Your task to perform on an android device: open device folders in google photos Image 0: 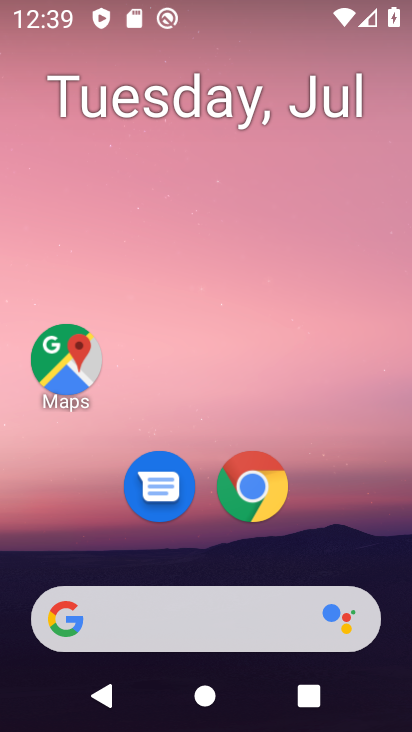
Step 0: drag from (327, 539) to (370, 90)
Your task to perform on an android device: open device folders in google photos Image 1: 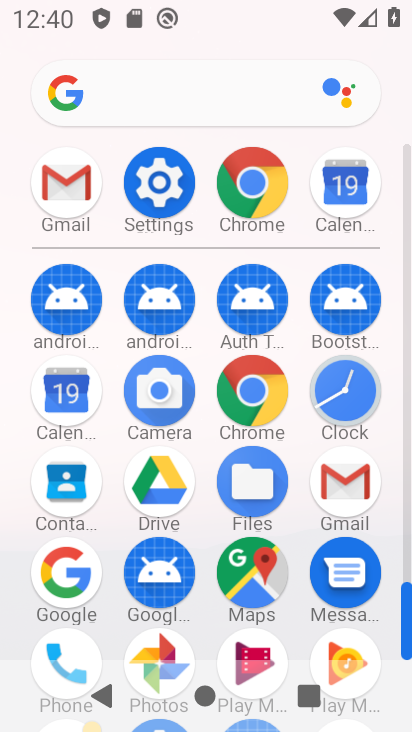
Step 1: drag from (383, 526) to (399, 249)
Your task to perform on an android device: open device folders in google photos Image 2: 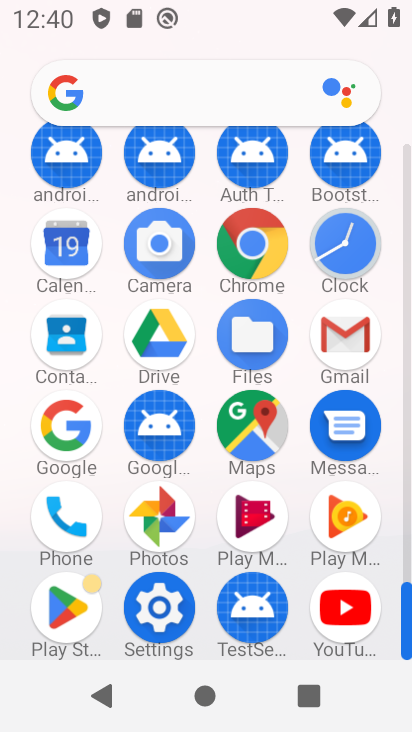
Step 2: click (162, 523)
Your task to perform on an android device: open device folders in google photos Image 3: 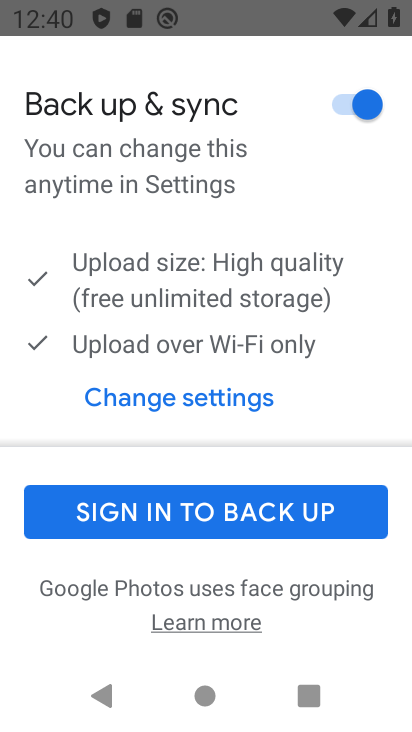
Step 3: task complete